Your task to perform on an android device: change your default location settings in chrome Image 0: 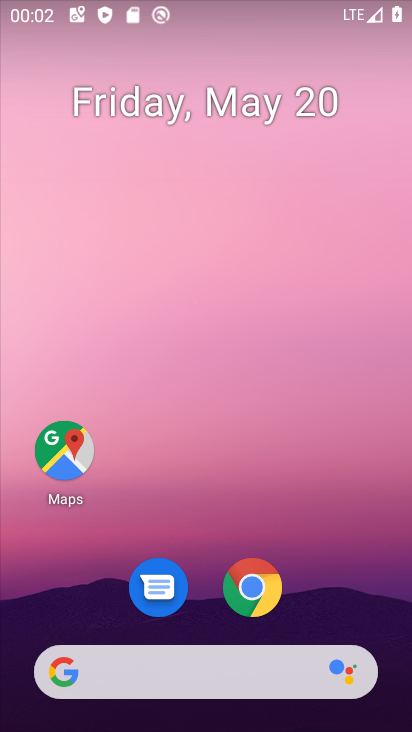
Step 0: drag from (281, 666) to (126, 143)
Your task to perform on an android device: change your default location settings in chrome Image 1: 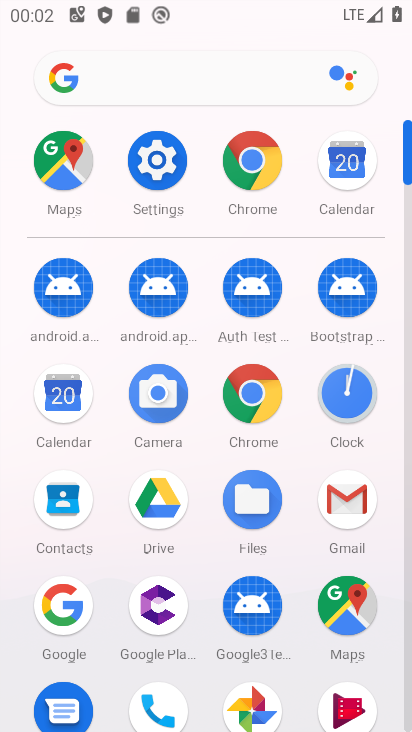
Step 1: click (250, 184)
Your task to perform on an android device: change your default location settings in chrome Image 2: 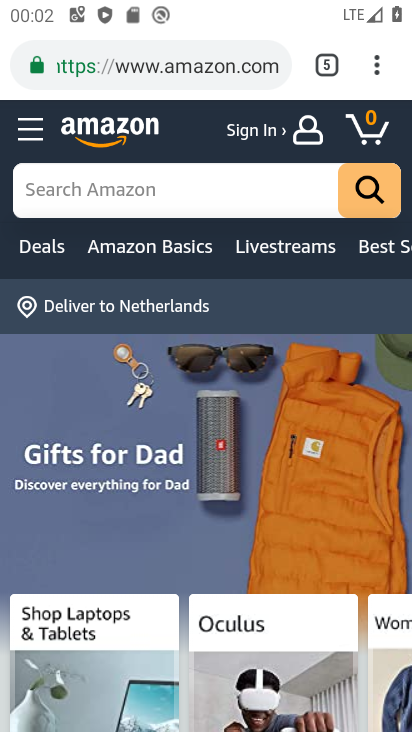
Step 2: click (380, 61)
Your task to perform on an android device: change your default location settings in chrome Image 3: 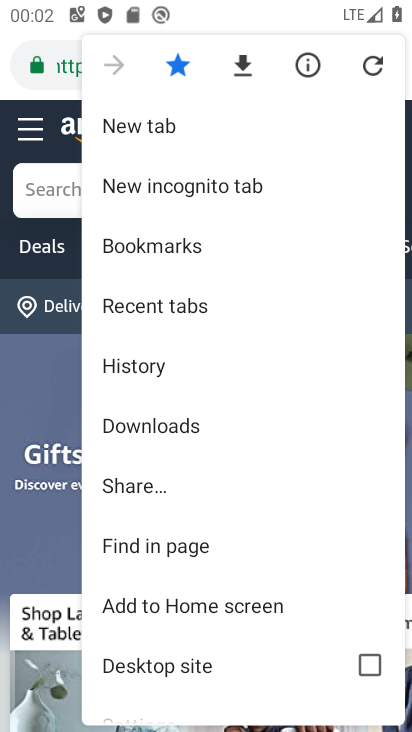
Step 3: drag from (164, 658) to (147, 429)
Your task to perform on an android device: change your default location settings in chrome Image 4: 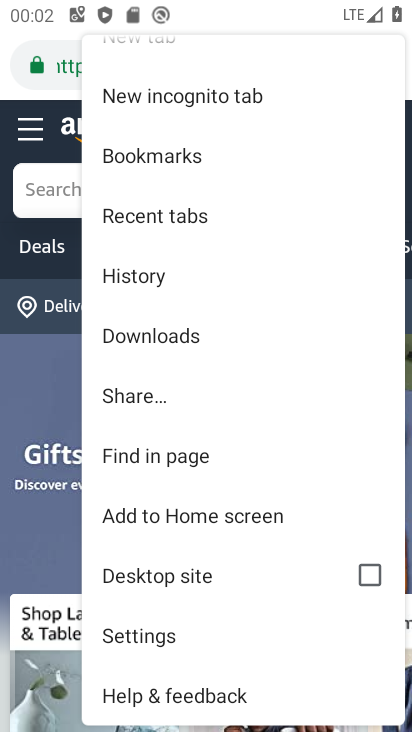
Step 4: click (181, 634)
Your task to perform on an android device: change your default location settings in chrome Image 5: 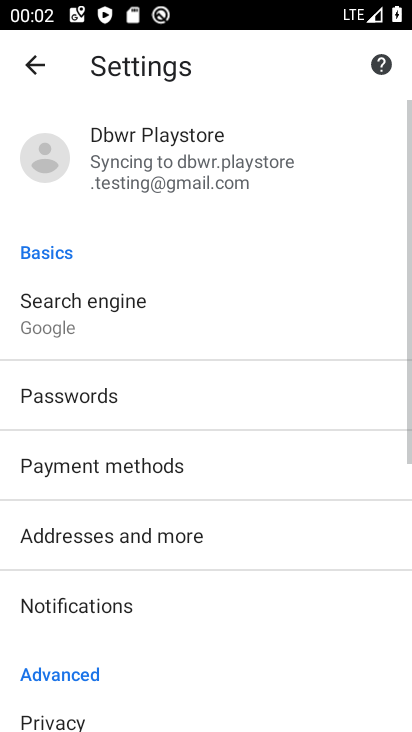
Step 5: drag from (147, 575) to (184, 276)
Your task to perform on an android device: change your default location settings in chrome Image 6: 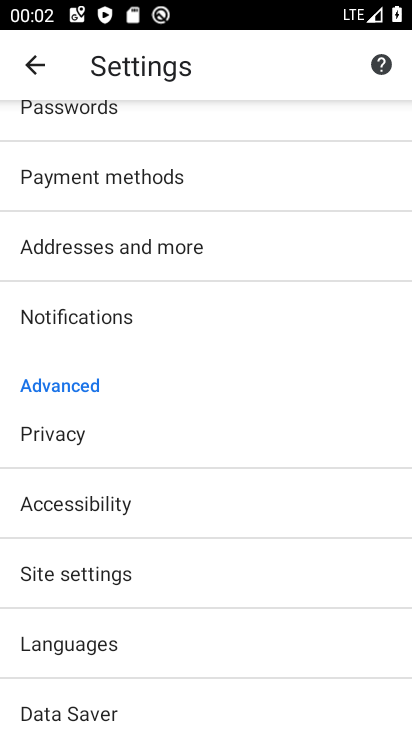
Step 6: click (130, 574)
Your task to perform on an android device: change your default location settings in chrome Image 7: 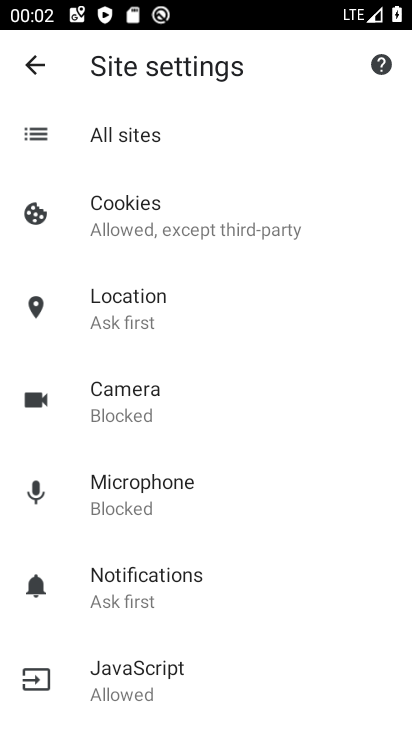
Step 7: click (113, 311)
Your task to perform on an android device: change your default location settings in chrome Image 8: 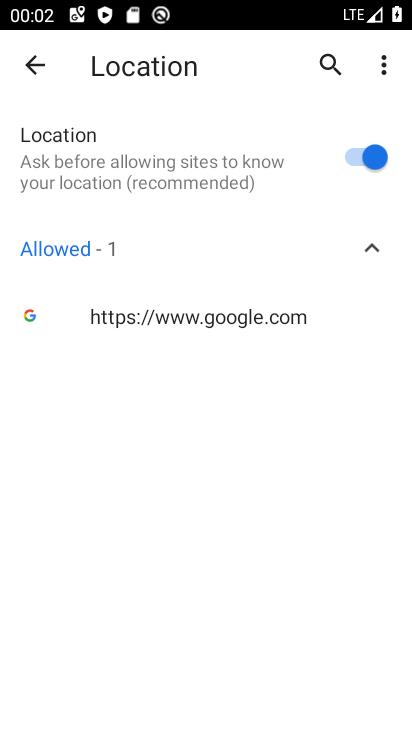
Step 8: task complete